Your task to perform on an android device: turn vacation reply on in the gmail app Image 0: 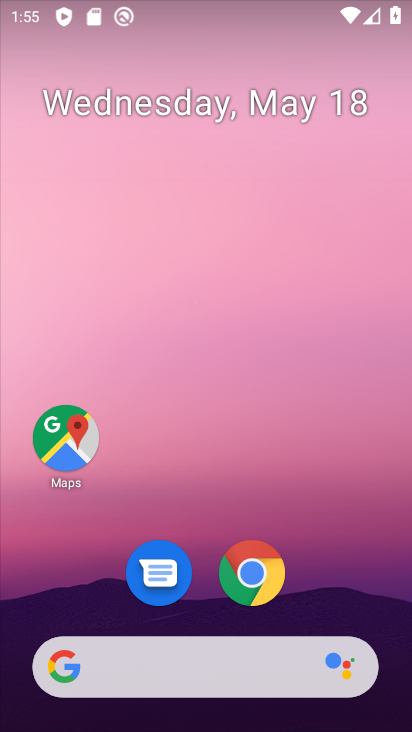
Step 0: drag from (302, 584) to (286, 166)
Your task to perform on an android device: turn vacation reply on in the gmail app Image 1: 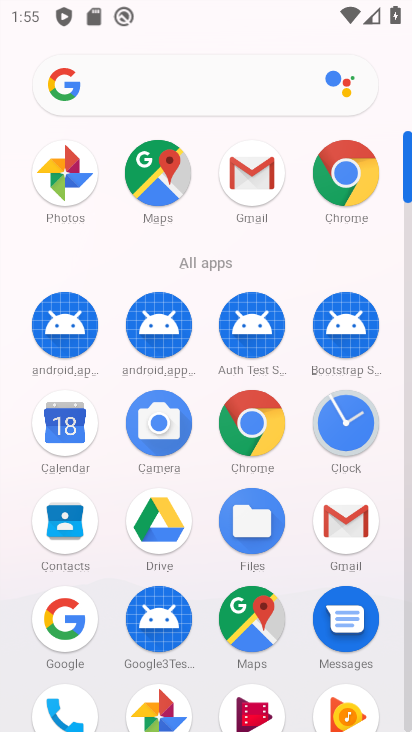
Step 1: click (254, 182)
Your task to perform on an android device: turn vacation reply on in the gmail app Image 2: 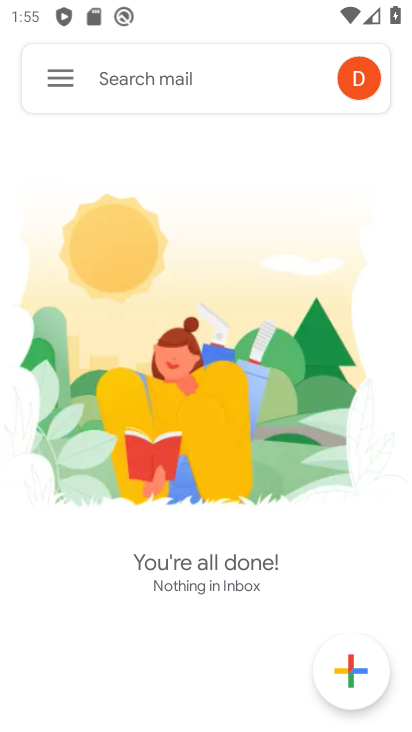
Step 2: click (56, 74)
Your task to perform on an android device: turn vacation reply on in the gmail app Image 3: 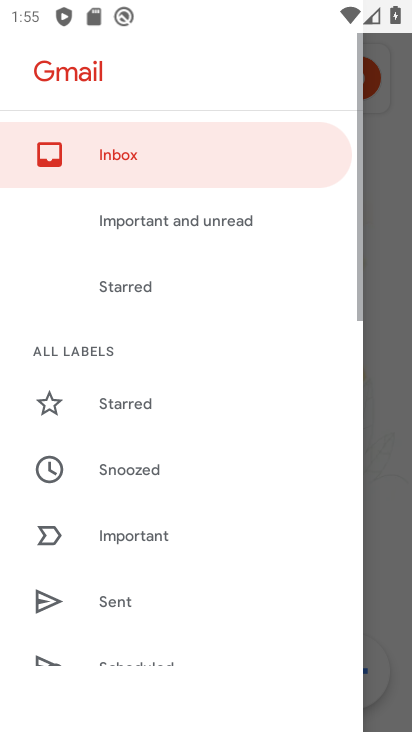
Step 3: drag from (124, 637) to (176, 173)
Your task to perform on an android device: turn vacation reply on in the gmail app Image 4: 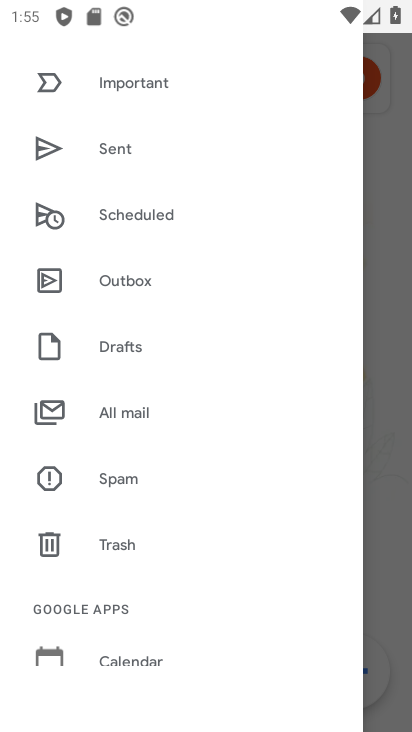
Step 4: drag from (162, 616) to (206, 257)
Your task to perform on an android device: turn vacation reply on in the gmail app Image 5: 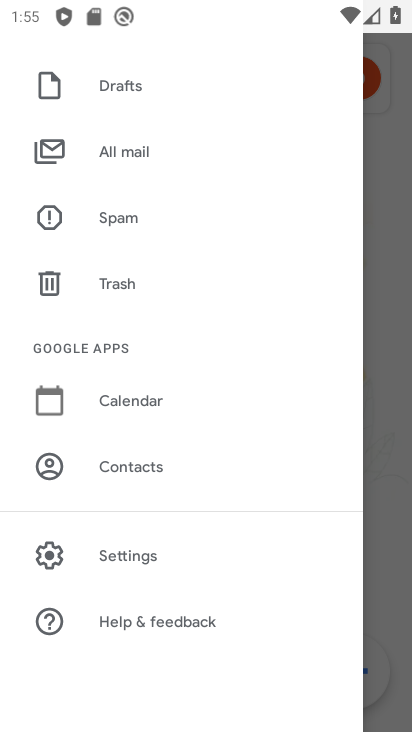
Step 5: click (121, 562)
Your task to perform on an android device: turn vacation reply on in the gmail app Image 6: 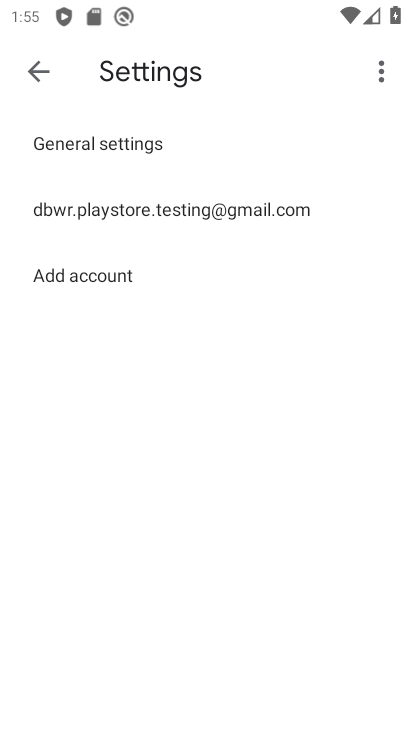
Step 6: click (188, 215)
Your task to perform on an android device: turn vacation reply on in the gmail app Image 7: 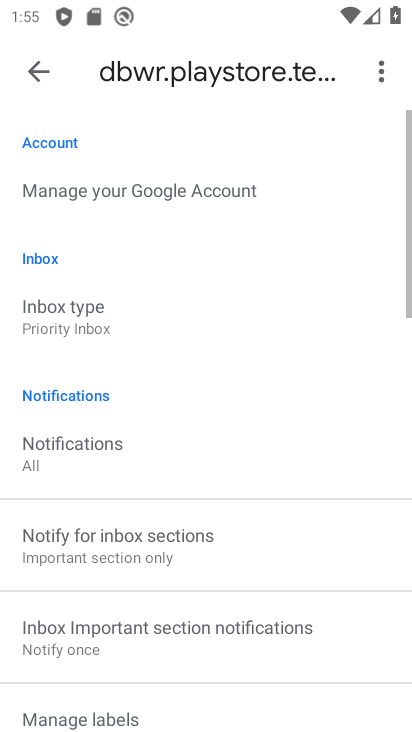
Step 7: drag from (182, 642) to (216, 237)
Your task to perform on an android device: turn vacation reply on in the gmail app Image 8: 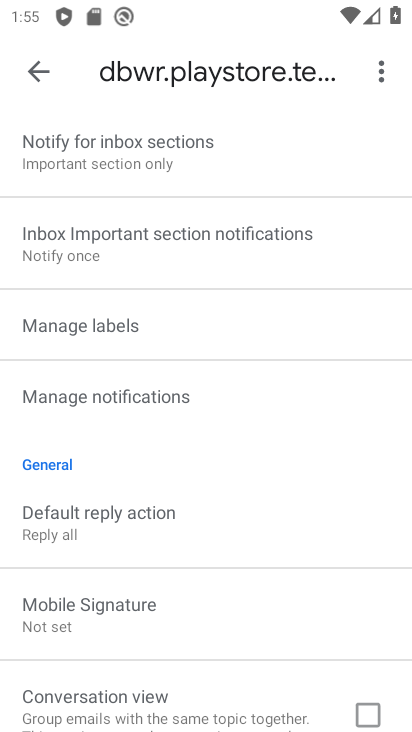
Step 8: drag from (166, 649) to (204, 261)
Your task to perform on an android device: turn vacation reply on in the gmail app Image 9: 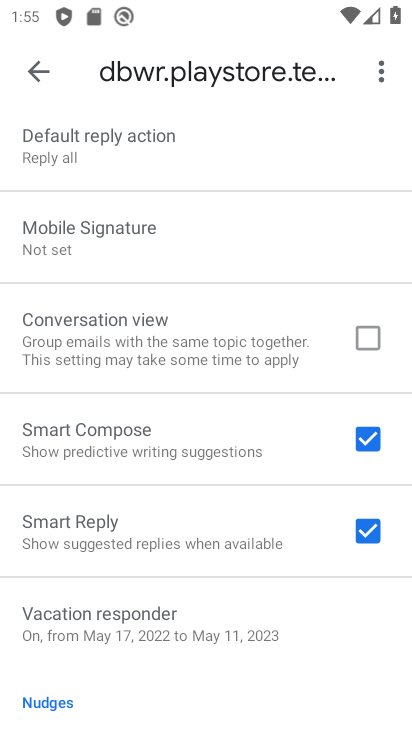
Step 9: click (156, 634)
Your task to perform on an android device: turn vacation reply on in the gmail app Image 10: 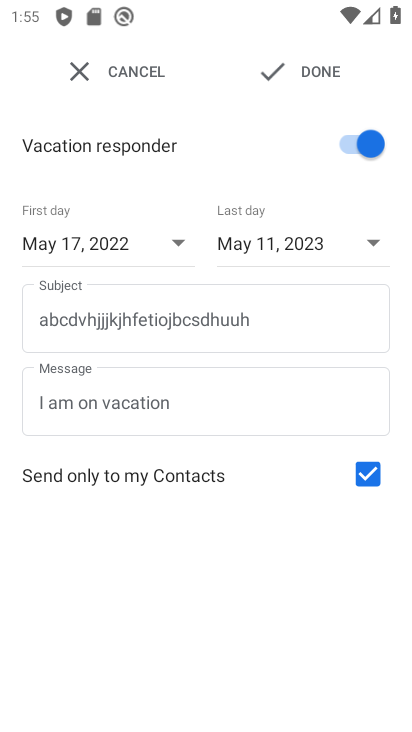
Step 10: click (319, 80)
Your task to perform on an android device: turn vacation reply on in the gmail app Image 11: 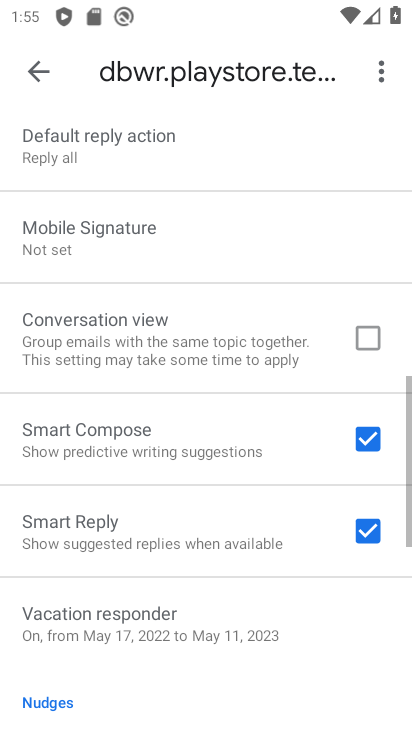
Step 11: task complete